Your task to perform on an android device: turn off improve location accuracy Image 0: 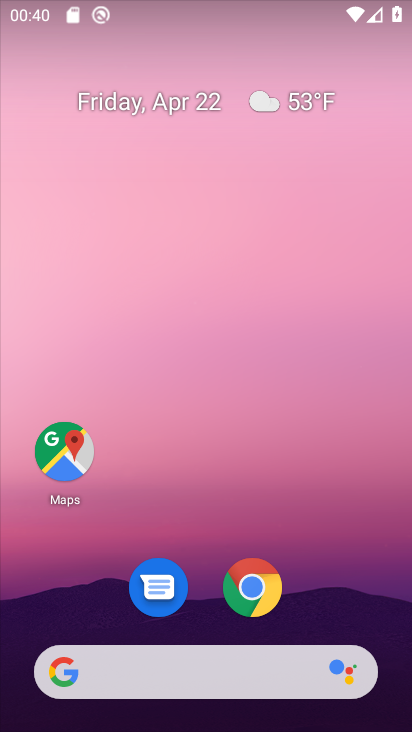
Step 0: drag from (316, 522) to (299, 179)
Your task to perform on an android device: turn off improve location accuracy Image 1: 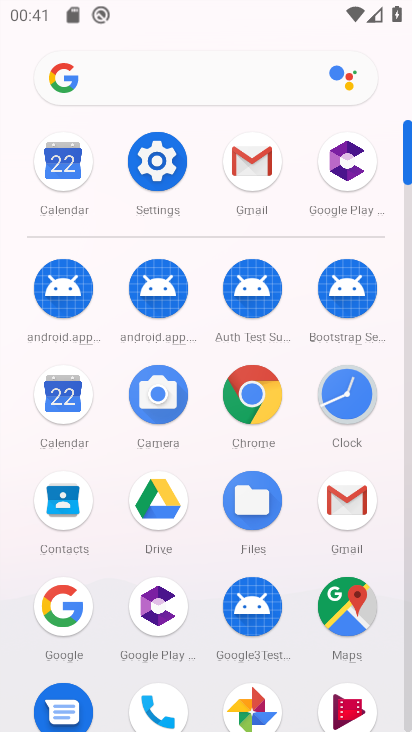
Step 1: click (145, 176)
Your task to perform on an android device: turn off improve location accuracy Image 2: 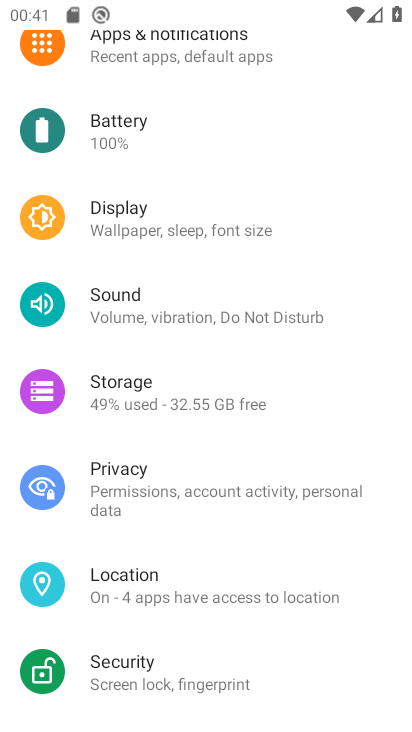
Step 2: click (180, 600)
Your task to perform on an android device: turn off improve location accuracy Image 3: 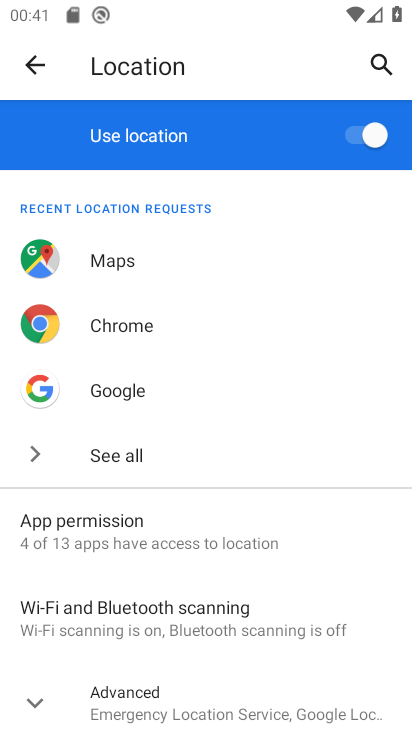
Step 3: click (29, 692)
Your task to perform on an android device: turn off improve location accuracy Image 4: 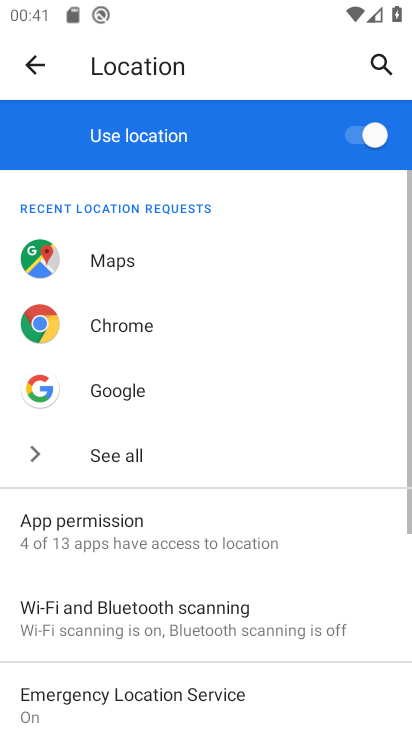
Step 4: drag from (211, 684) to (203, 334)
Your task to perform on an android device: turn off improve location accuracy Image 5: 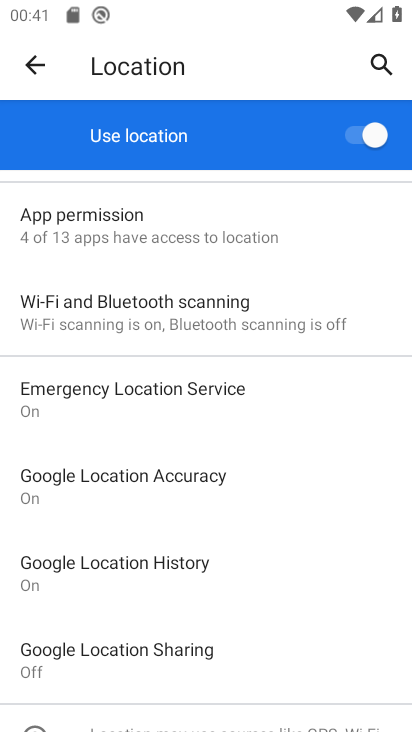
Step 5: click (187, 478)
Your task to perform on an android device: turn off improve location accuracy Image 6: 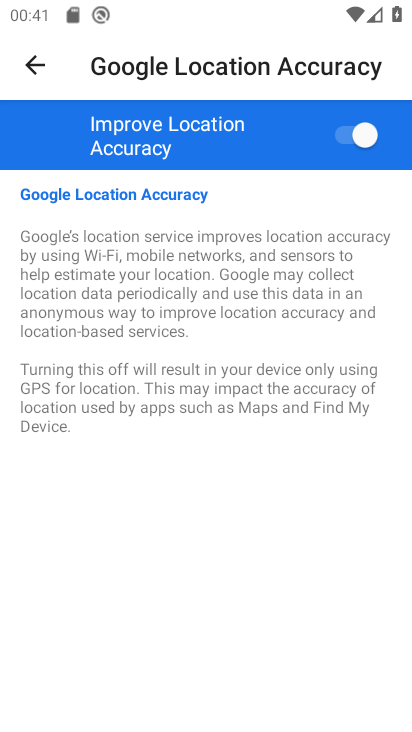
Step 6: click (361, 131)
Your task to perform on an android device: turn off improve location accuracy Image 7: 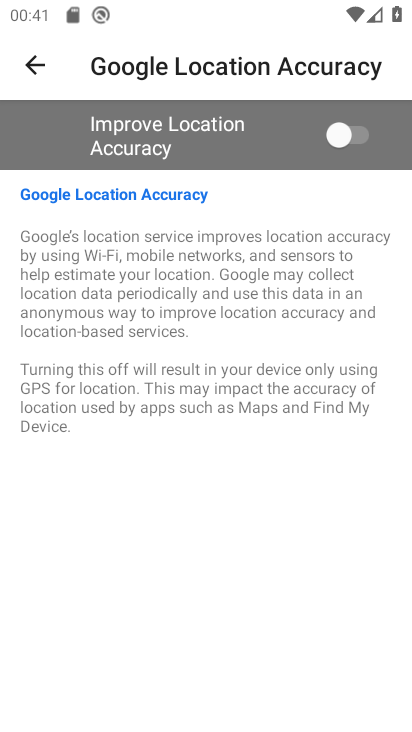
Step 7: task complete